Your task to perform on an android device: change the upload size in google photos Image 0: 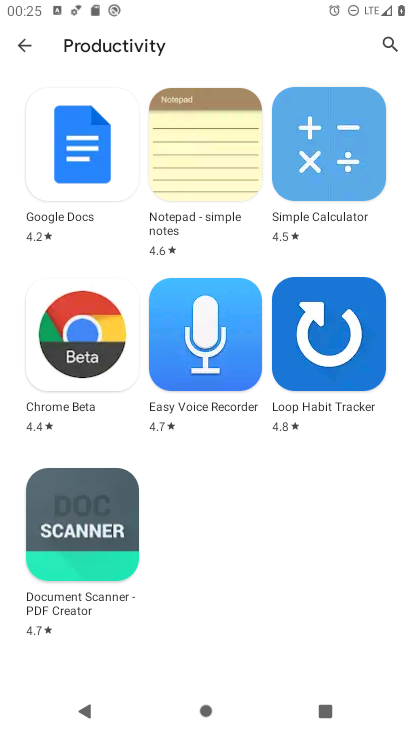
Step 0: press home button
Your task to perform on an android device: change the upload size in google photos Image 1: 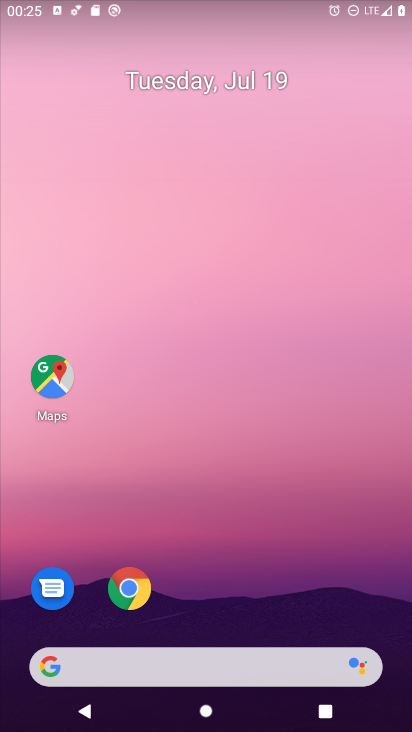
Step 1: drag from (372, 620) to (346, 22)
Your task to perform on an android device: change the upload size in google photos Image 2: 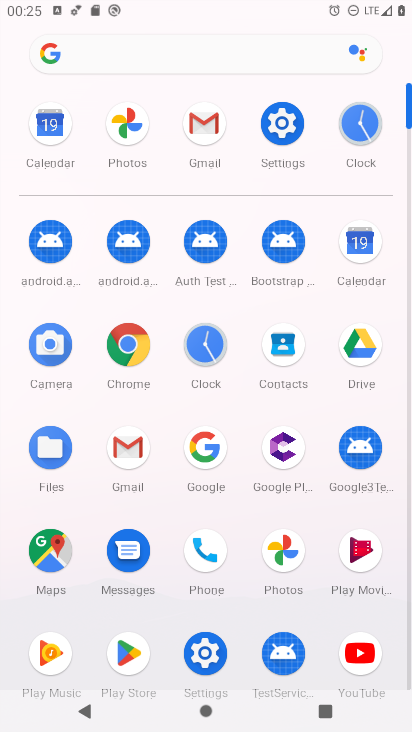
Step 2: click (282, 546)
Your task to perform on an android device: change the upload size in google photos Image 3: 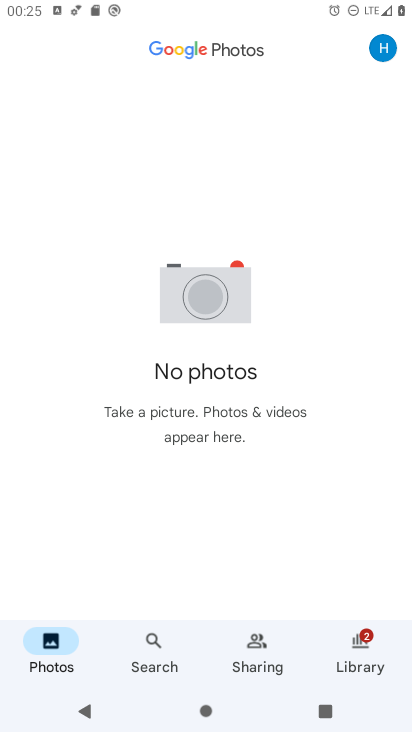
Step 3: click (382, 48)
Your task to perform on an android device: change the upload size in google photos Image 4: 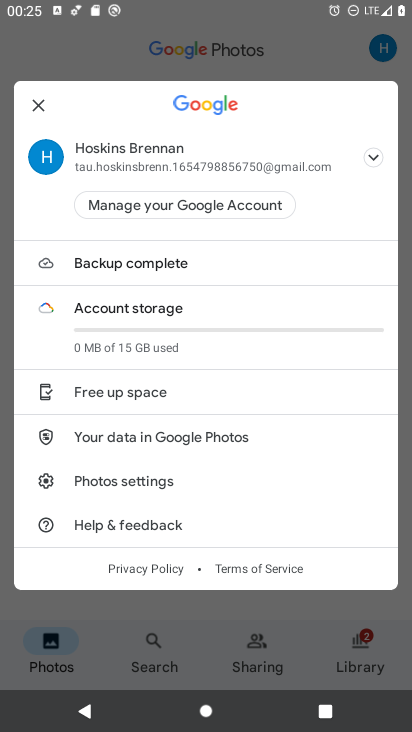
Step 4: click (118, 487)
Your task to perform on an android device: change the upload size in google photos Image 5: 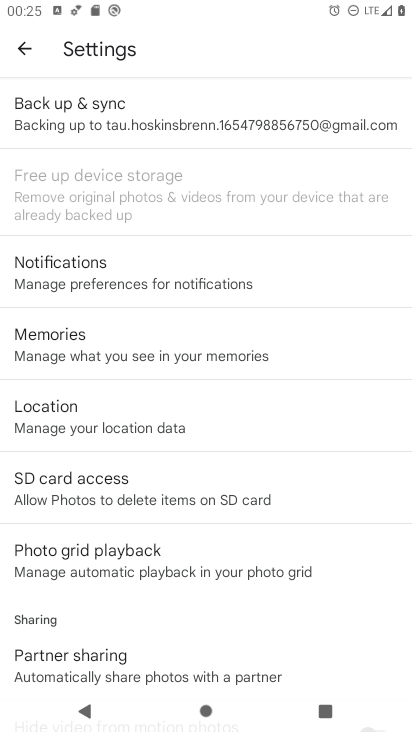
Step 5: click (64, 108)
Your task to perform on an android device: change the upload size in google photos Image 6: 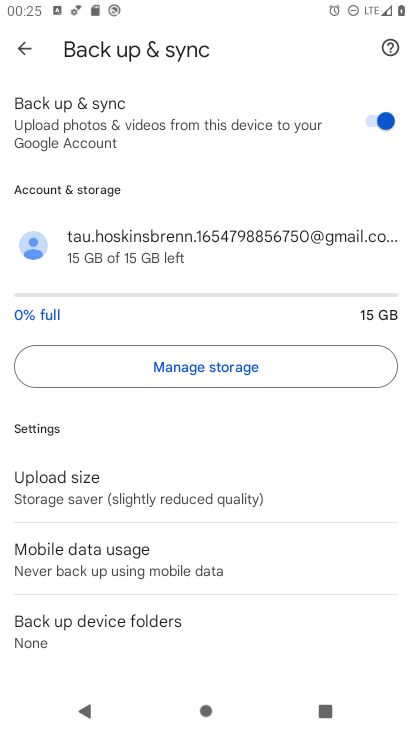
Step 6: click (66, 485)
Your task to perform on an android device: change the upload size in google photos Image 7: 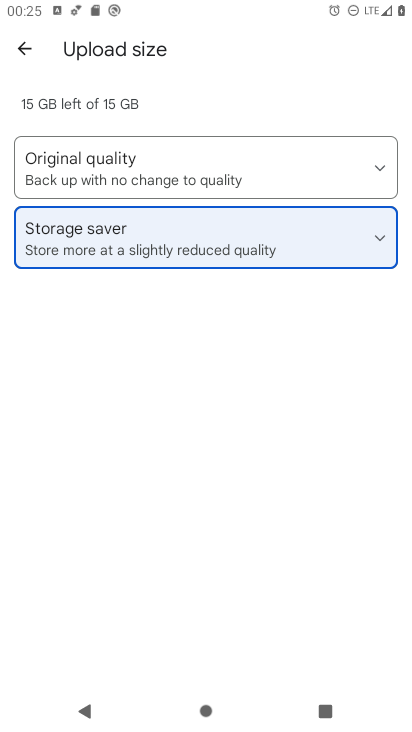
Step 7: click (162, 171)
Your task to perform on an android device: change the upload size in google photos Image 8: 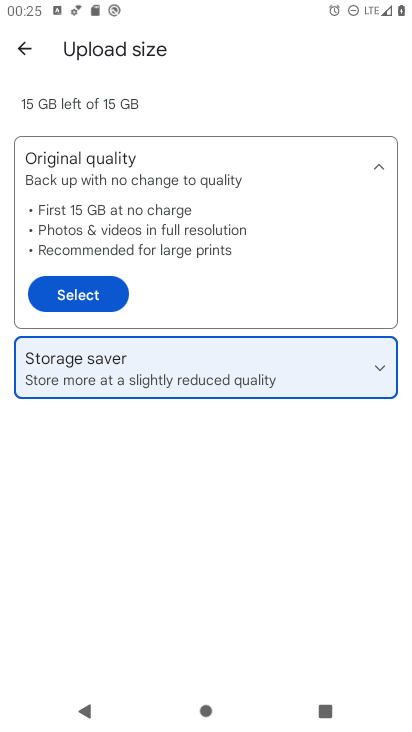
Step 8: click (77, 296)
Your task to perform on an android device: change the upload size in google photos Image 9: 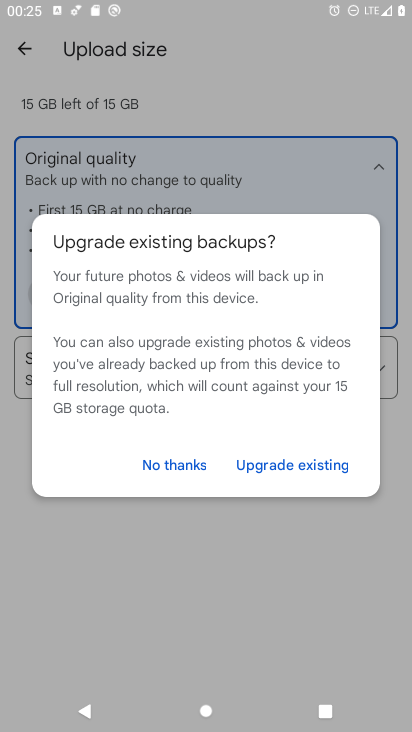
Step 9: click (304, 465)
Your task to perform on an android device: change the upload size in google photos Image 10: 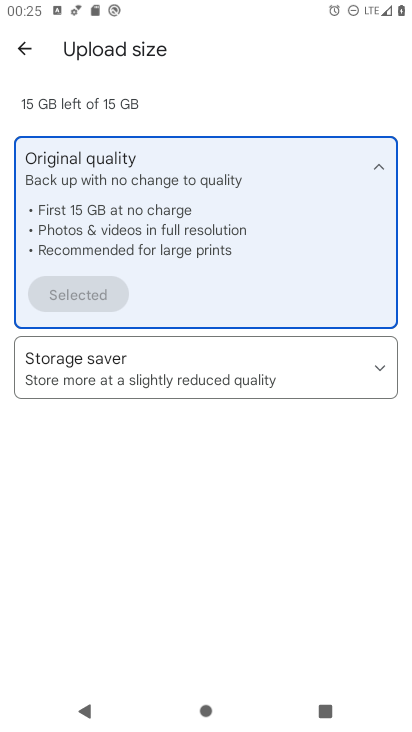
Step 10: task complete